Your task to perform on an android device: View the shopping cart on newegg. Search for corsair k70 on newegg, select the first entry, add it to the cart, then select checkout. Image 0: 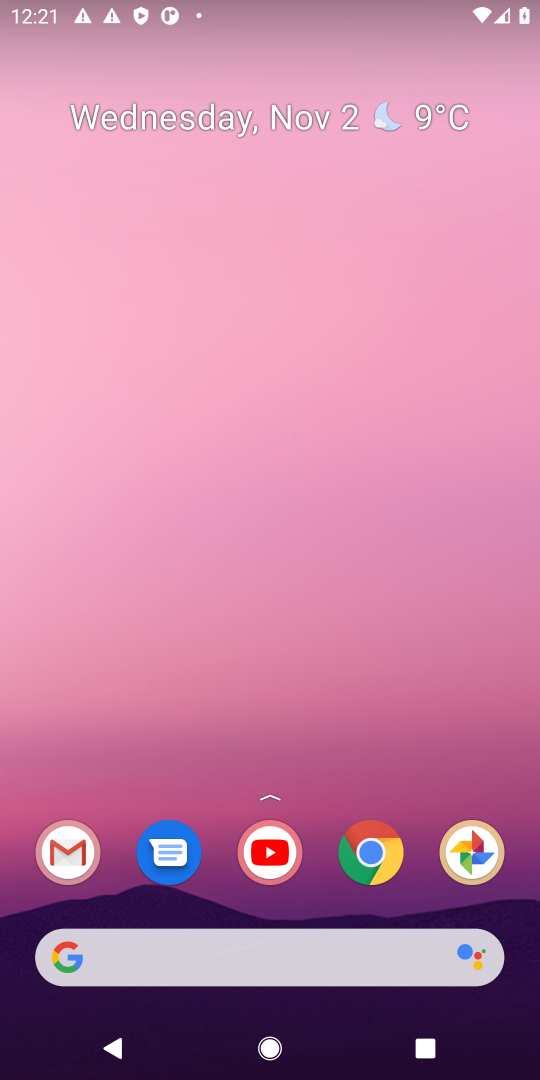
Step 0: drag from (258, 800) to (331, 75)
Your task to perform on an android device: View the shopping cart on newegg. Search for corsair k70 on newegg, select the first entry, add it to the cart, then select checkout. Image 1: 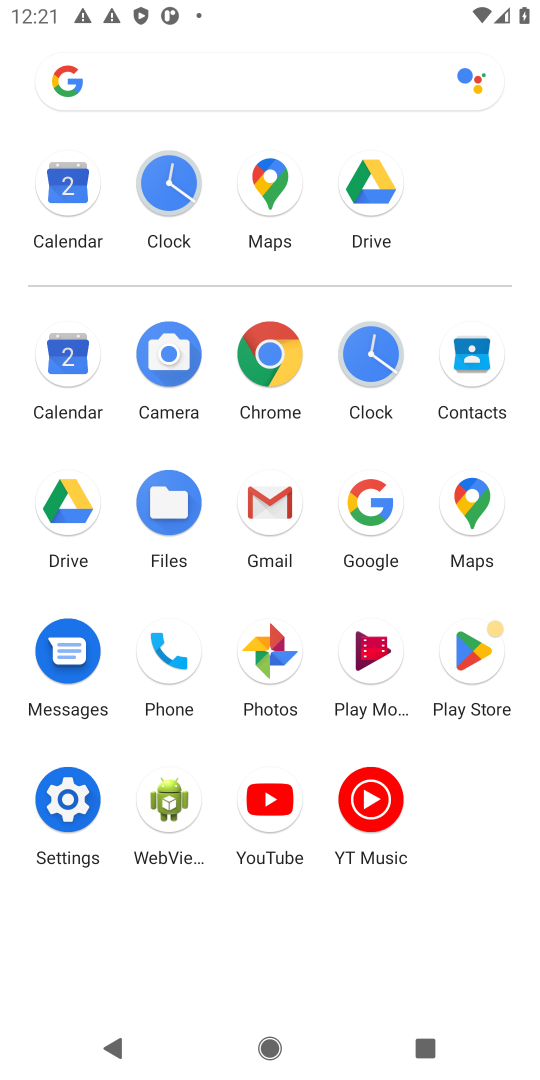
Step 1: click (386, 526)
Your task to perform on an android device: View the shopping cart on newegg. Search for corsair k70 on newegg, select the first entry, add it to the cart, then select checkout. Image 2: 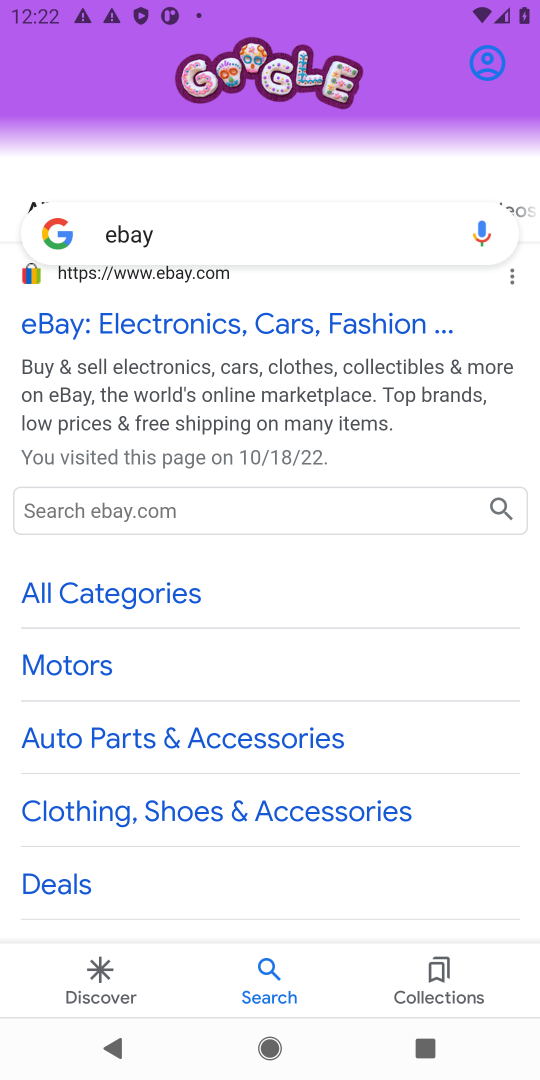
Step 2: click (304, 246)
Your task to perform on an android device: View the shopping cart on newegg. Search for corsair k70 on newegg, select the first entry, add it to the cart, then select checkout. Image 3: 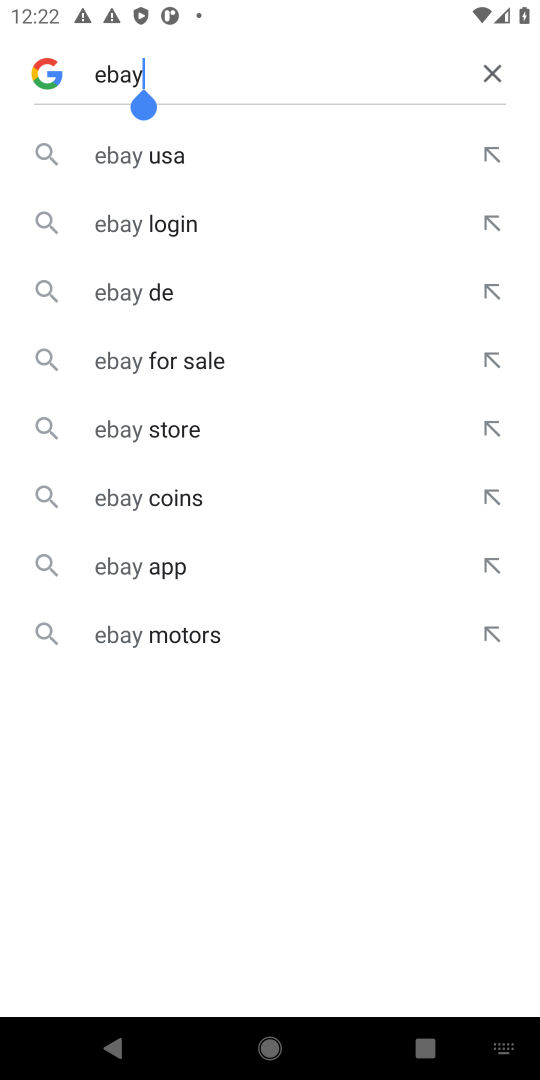
Step 3: click (491, 78)
Your task to perform on an android device: View the shopping cart on newegg. Search for corsair k70 on newegg, select the first entry, add it to the cart, then select checkout. Image 4: 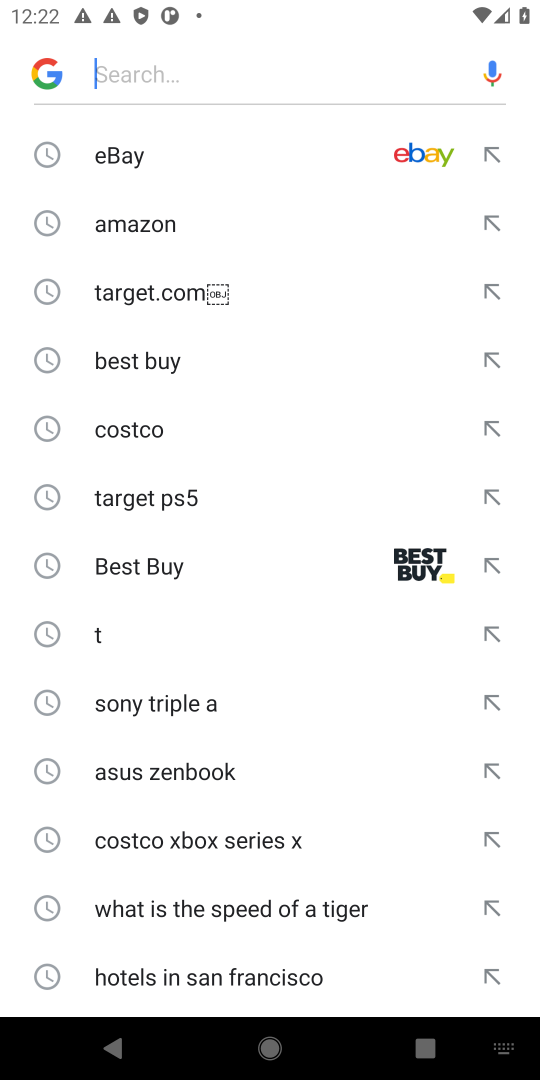
Step 4: type "newegg"
Your task to perform on an android device: View the shopping cart on newegg. Search for corsair k70 on newegg, select the first entry, add it to the cart, then select checkout. Image 5: 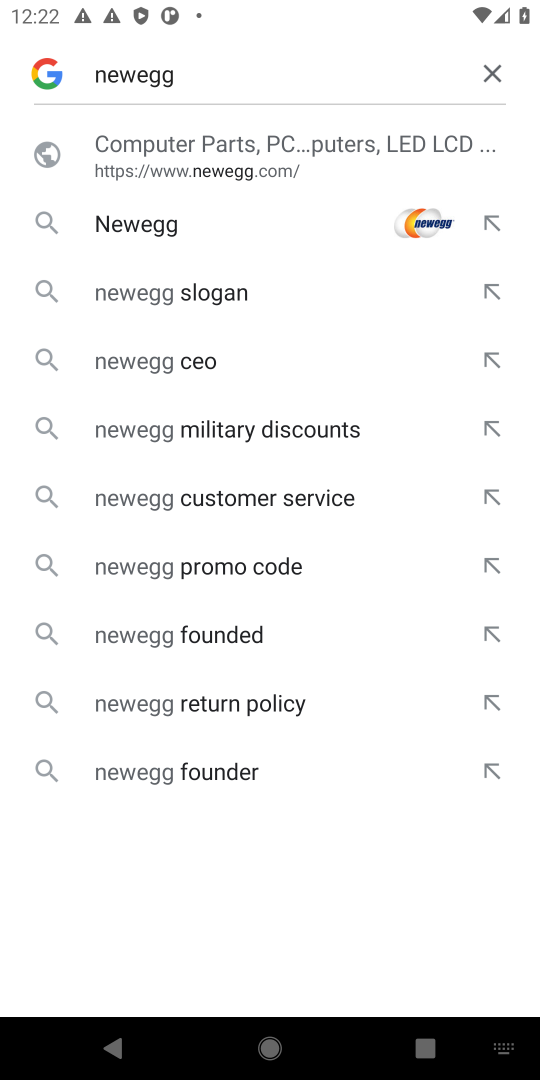
Step 5: click (254, 163)
Your task to perform on an android device: View the shopping cart on newegg. Search for corsair k70 on newegg, select the first entry, add it to the cart, then select checkout. Image 6: 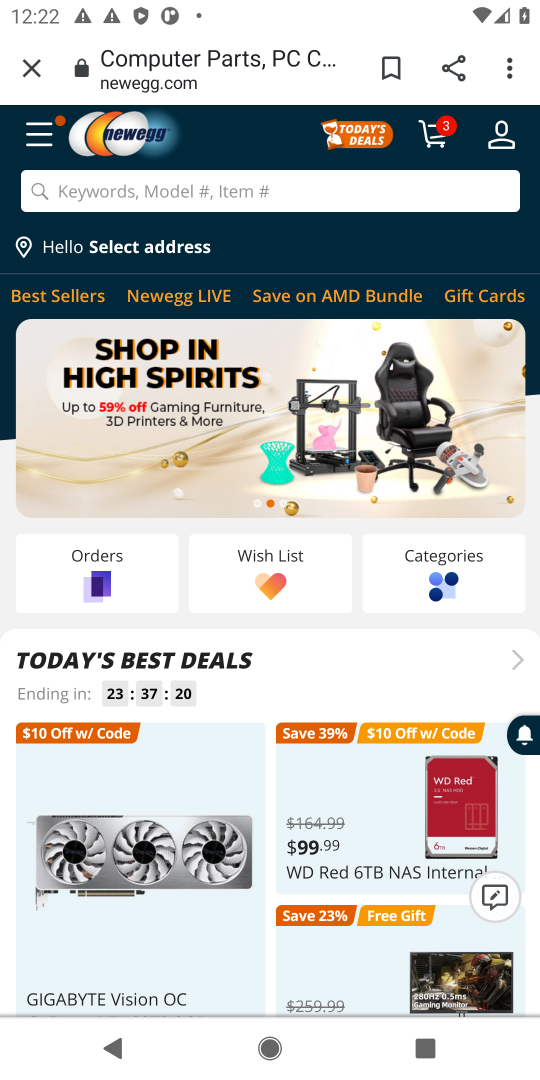
Step 6: click (254, 163)
Your task to perform on an android device: View the shopping cart on newegg. Search for corsair k70 on newegg, select the first entry, add it to the cart, then select checkout. Image 7: 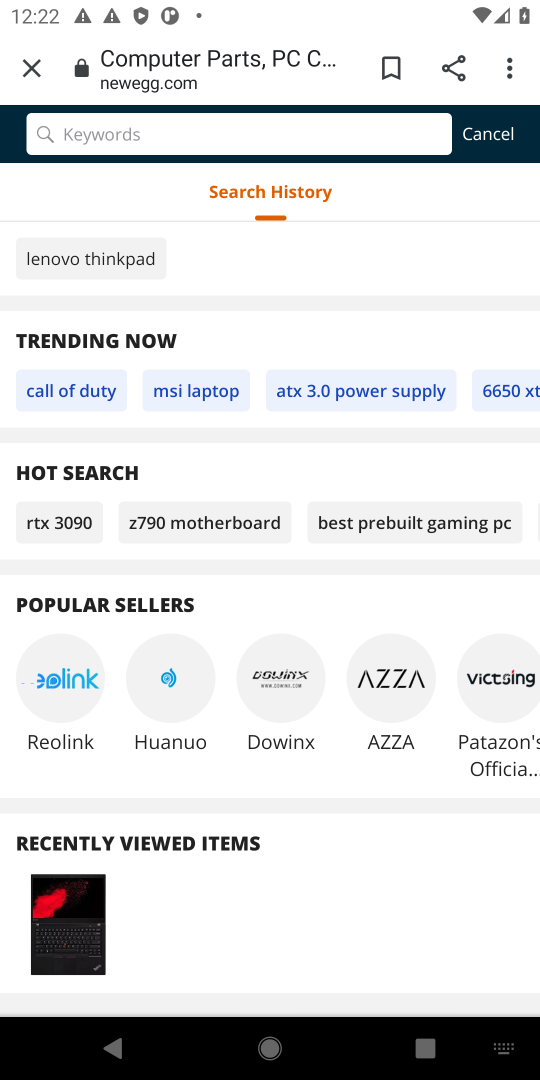
Step 7: type "corsair k70"
Your task to perform on an android device: View the shopping cart on newegg. Search for corsair k70 on newegg, select the first entry, add it to the cart, then select checkout. Image 8: 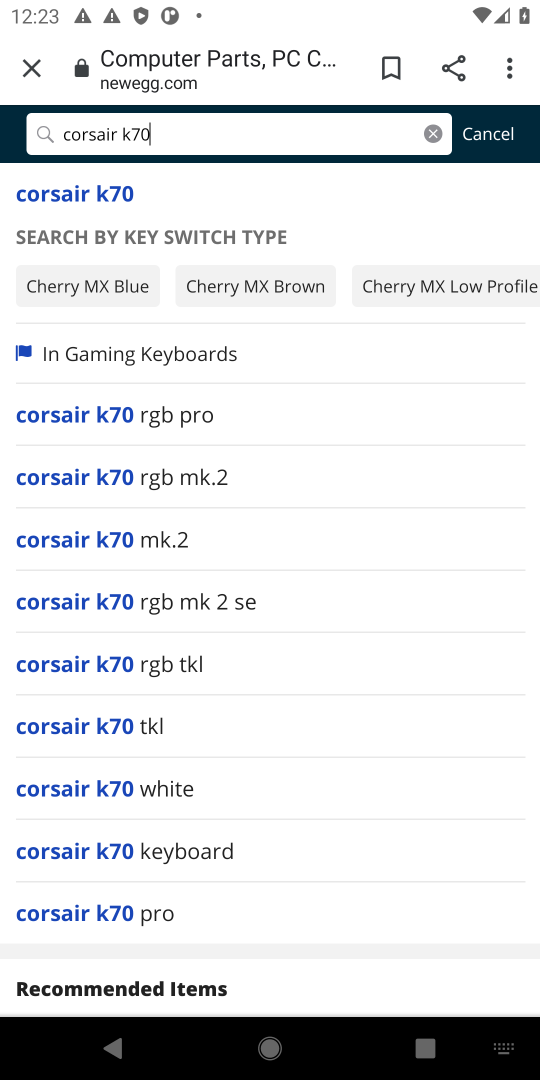
Step 8: click (132, 191)
Your task to perform on an android device: View the shopping cart on newegg. Search for corsair k70 on newegg, select the first entry, add it to the cart, then select checkout. Image 9: 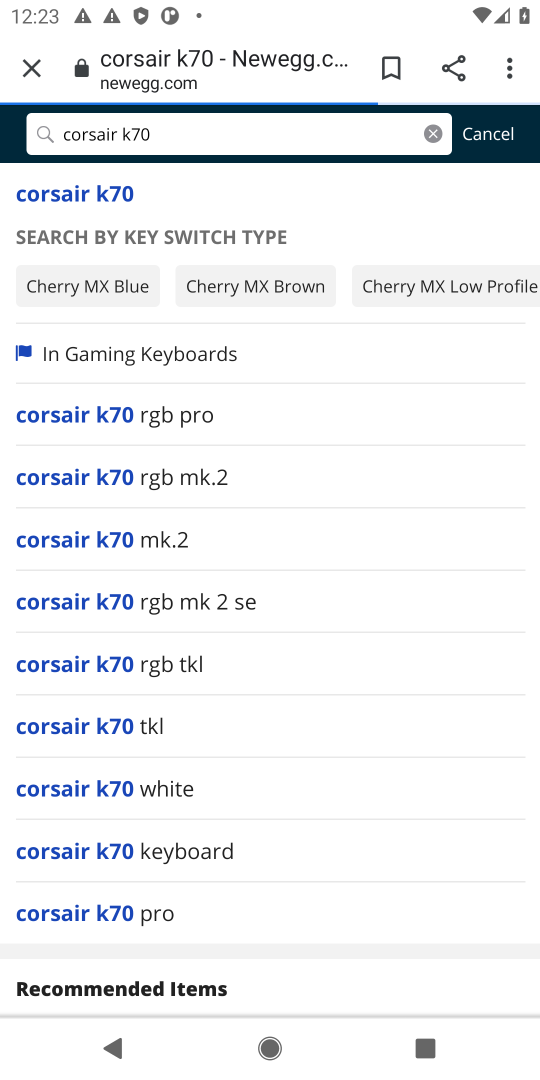
Step 9: click (132, 191)
Your task to perform on an android device: View the shopping cart on newegg. Search for corsair k70 on newegg, select the first entry, add it to the cart, then select checkout. Image 10: 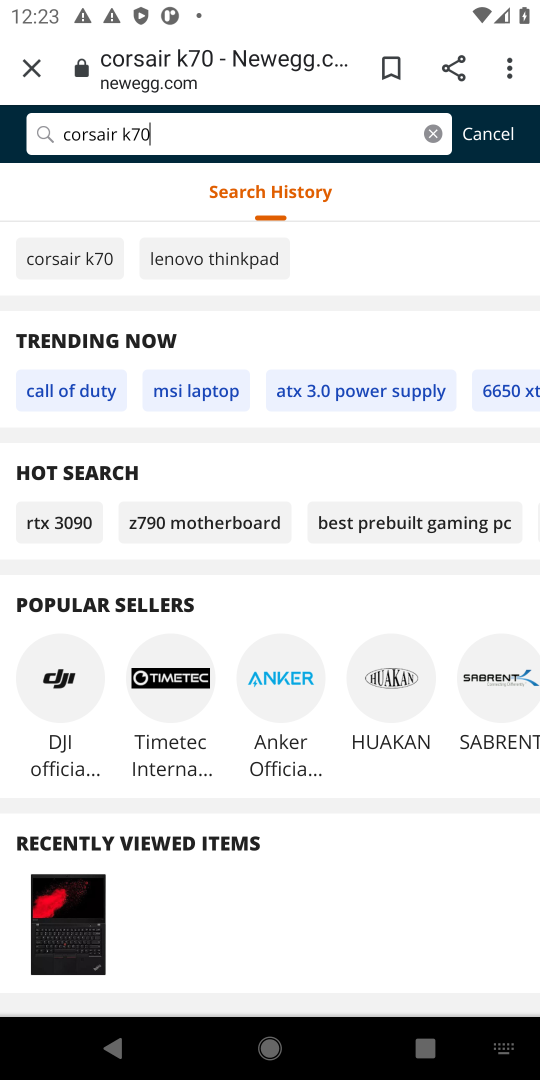
Step 10: task complete